Your task to perform on an android device: all mails in gmail Image 0: 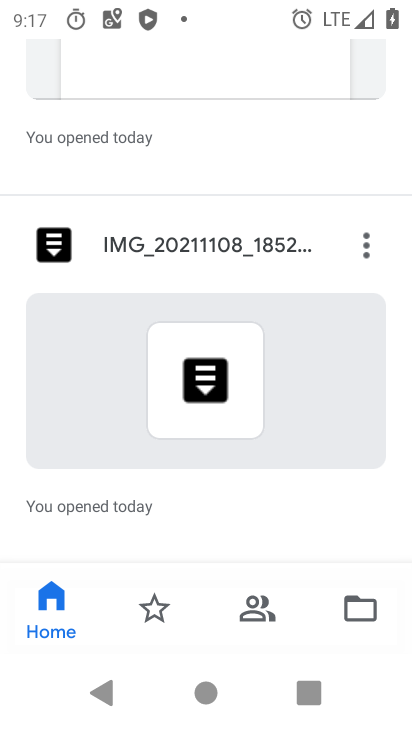
Step 0: drag from (208, 498) to (227, 67)
Your task to perform on an android device: all mails in gmail Image 1: 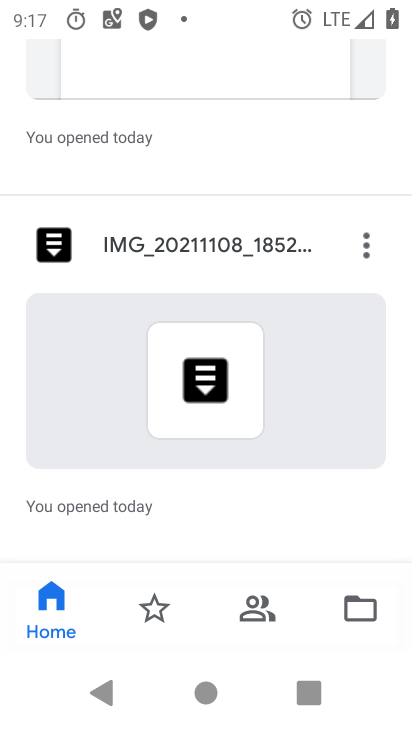
Step 1: press home button
Your task to perform on an android device: all mails in gmail Image 2: 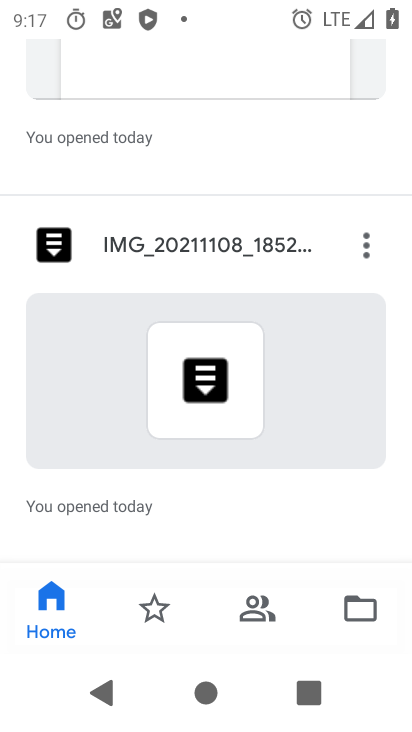
Step 2: drag from (195, 491) to (228, 2)
Your task to perform on an android device: all mails in gmail Image 3: 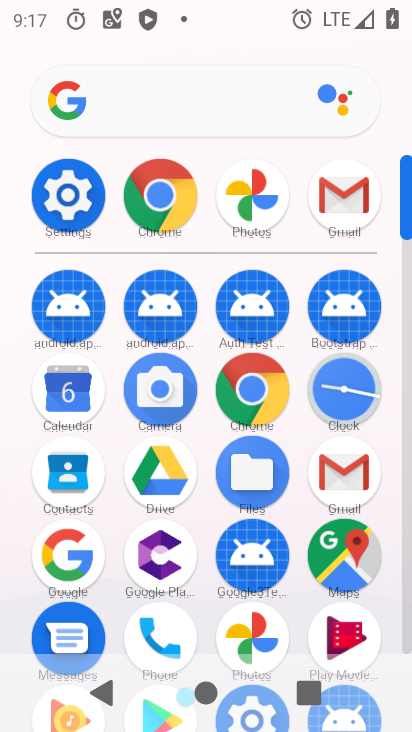
Step 3: click (333, 470)
Your task to perform on an android device: all mails in gmail Image 4: 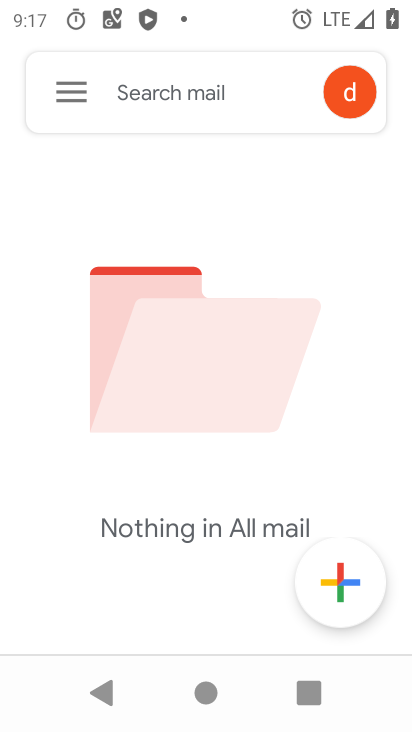
Step 4: click (59, 95)
Your task to perform on an android device: all mails in gmail Image 5: 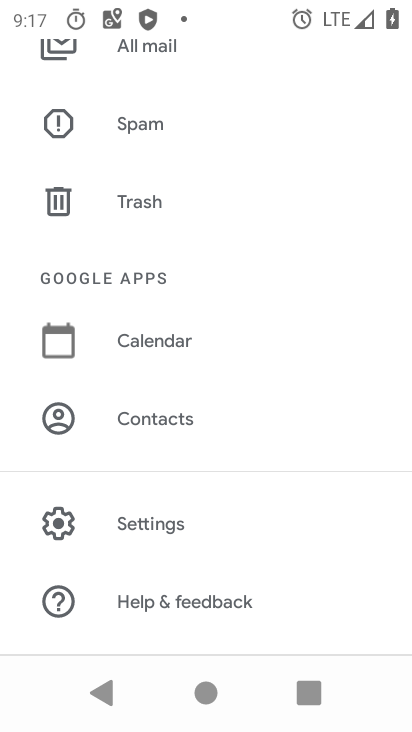
Step 5: click (139, 67)
Your task to perform on an android device: all mails in gmail Image 6: 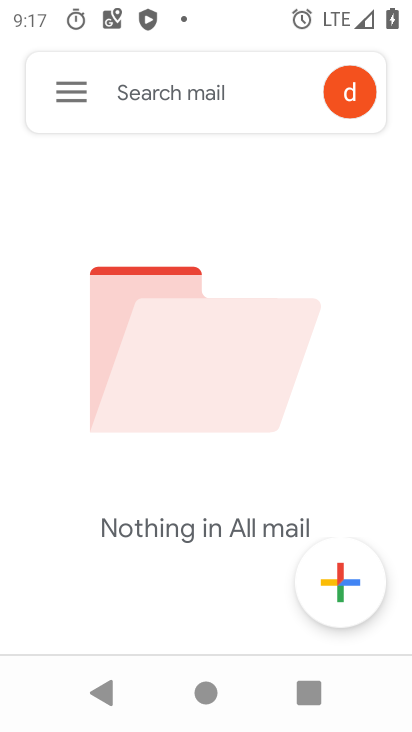
Step 6: task complete